Your task to perform on an android device: delete browsing data in the chrome app Image 0: 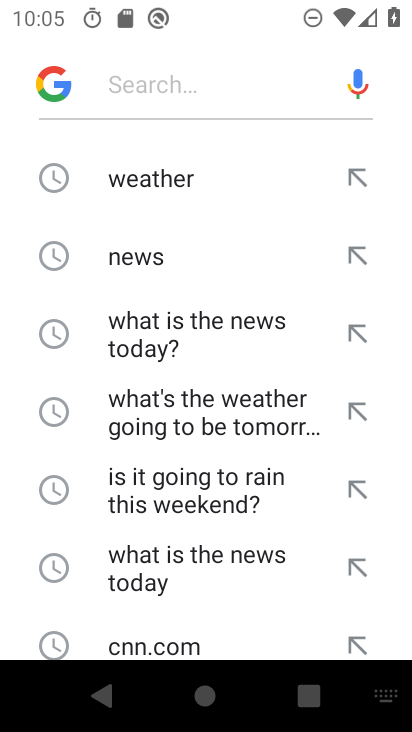
Step 0: press home button
Your task to perform on an android device: delete browsing data in the chrome app Image 1: 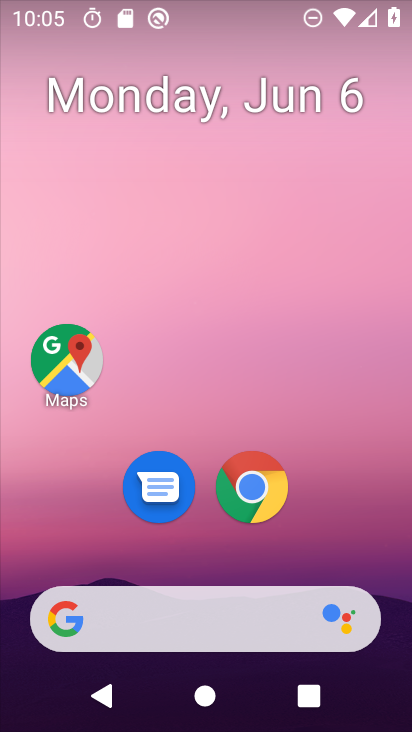
Step 1: drag from (401, 620) to (352, 82)
Your task to perform on an android device: delete browsing data in the chrome app Image 2: 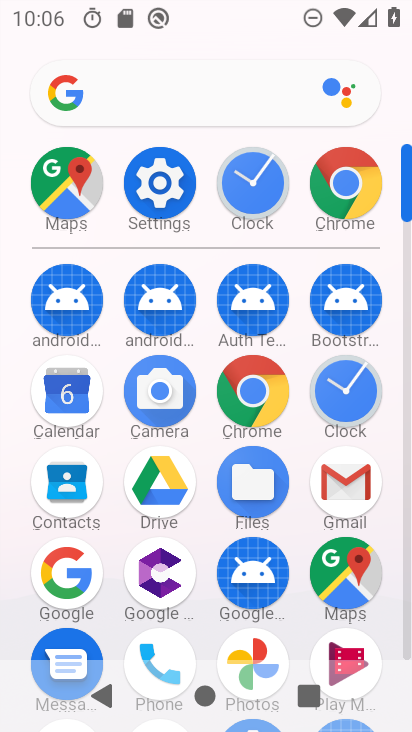
Step 2: click (343, 204)
Your task to perform on an android device: delete browsing data in the chrome app Image 3: 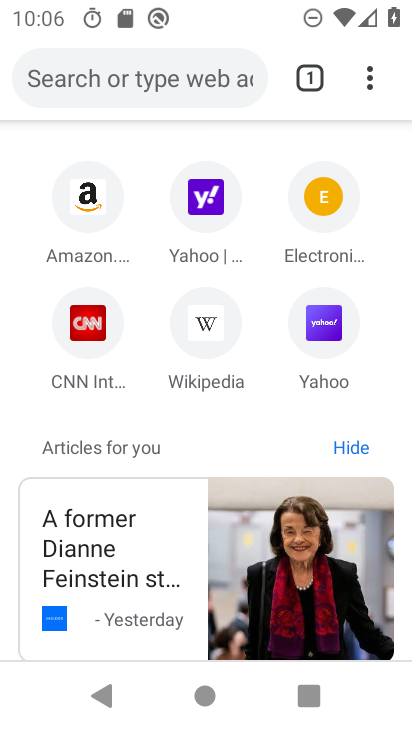
Step 3: click (370, 78)
Your task to perform on an android device: delete browsing data in the chrome app Image 4: 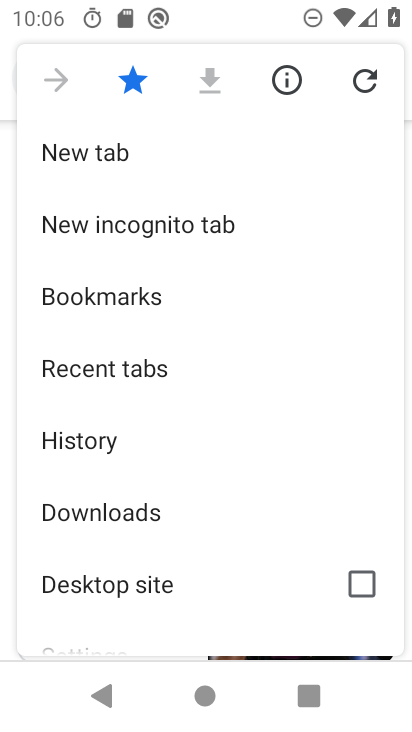
Step 4: click (101, 437)
Your task to perform on an android device: delete browsing data in the chrome app Image 5: 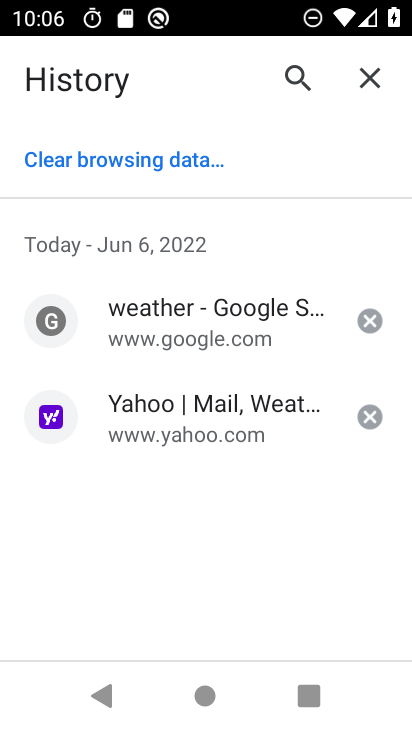
Step 5: click (154, 181)
Your task to perform on an android device: delete browsing data in the chrome app Image 6: 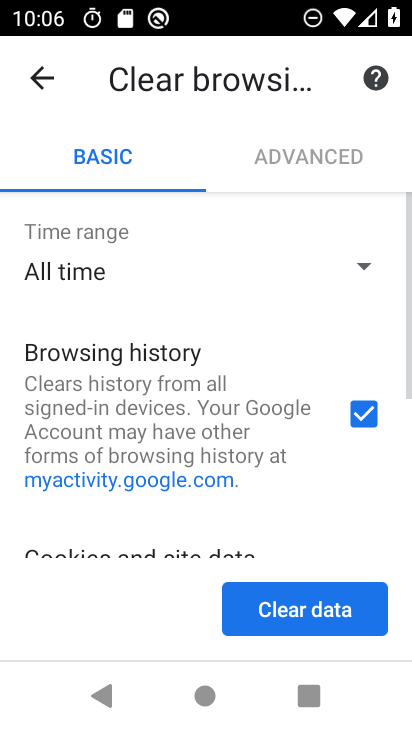
Step 6: click (272, 594)
Your task to perform on an android device: delete browsing data in the chrome app Image 7: 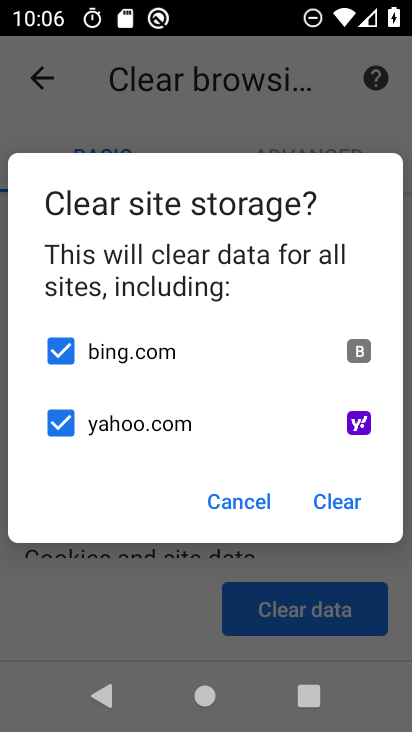
Step 7: click (343, 503)
Your task to perform on an android device: delete browsing data in the chrome app Image 8: 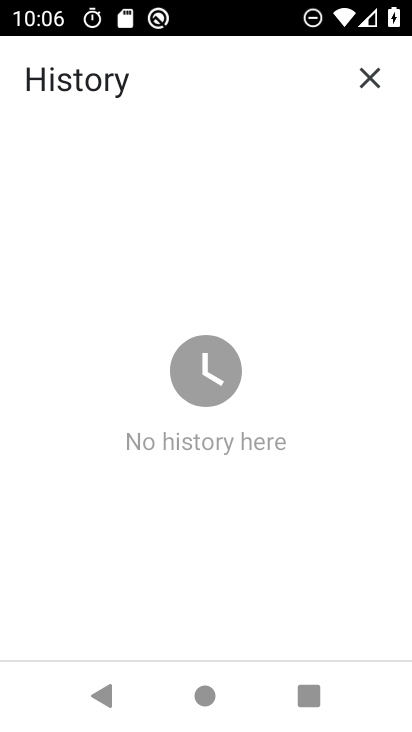
Step 8: task complete